Your task to perform on an android device: turn off smart reply in the gmail app Image 0: 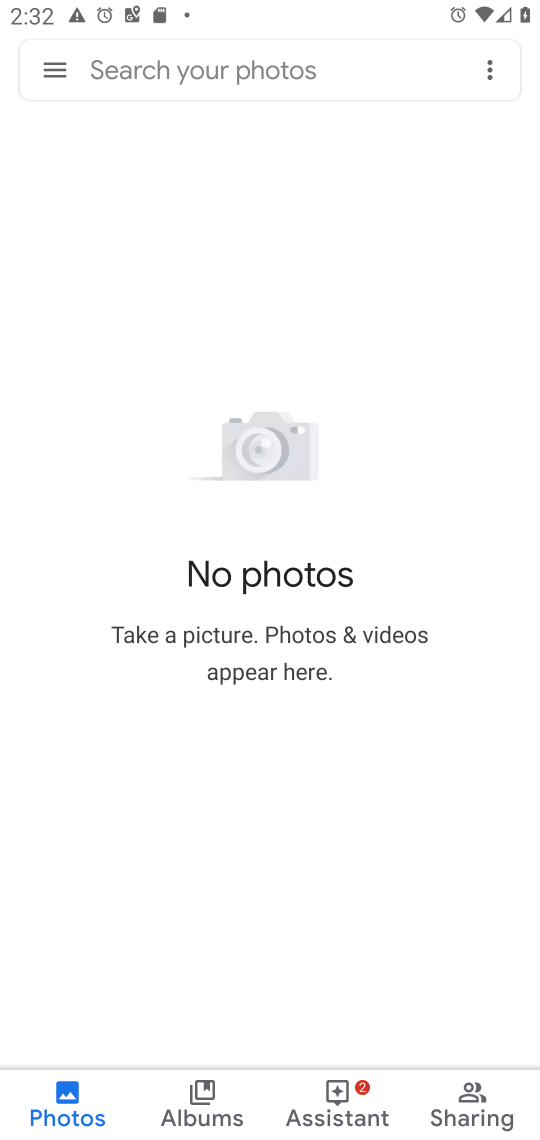
Step 0: press home button
Your task to perform on an android device: turn off smart reply in the gmail app Image 1: 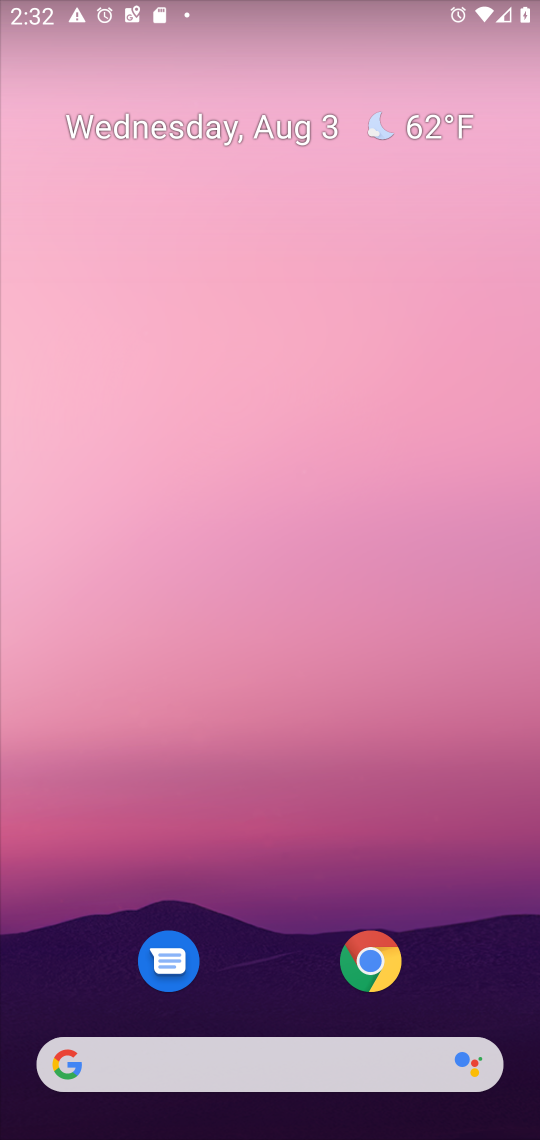
Step 1: drag from (255, 974) to (301, 45)
Your task to perform on an android device: turn off smart reply in the gmail app Image 2: 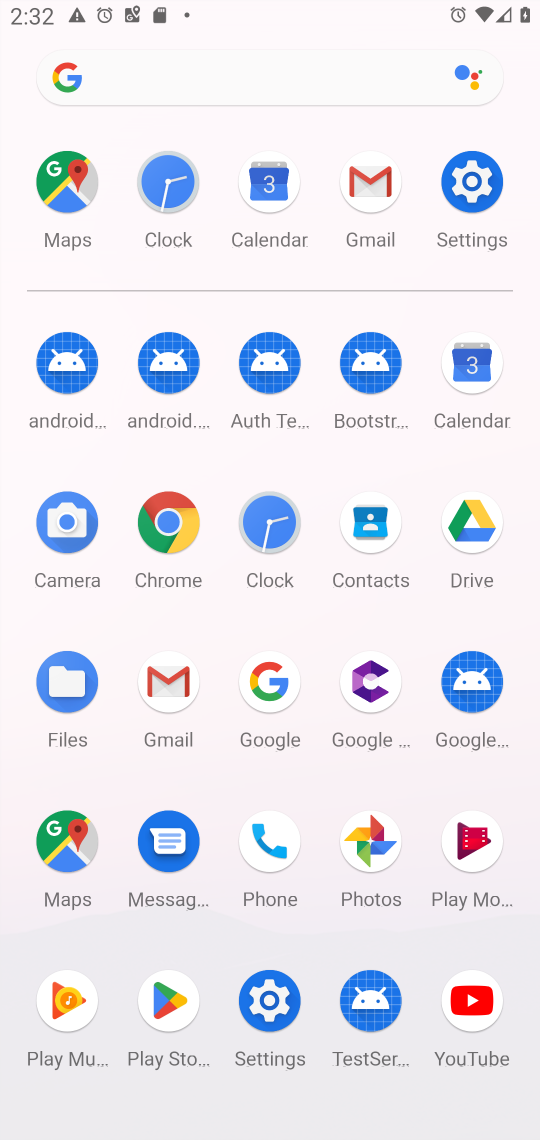
Step 2: click (375, 181)
Your task to perform on an android device: turn off smart reply in the gmail app Image 3: 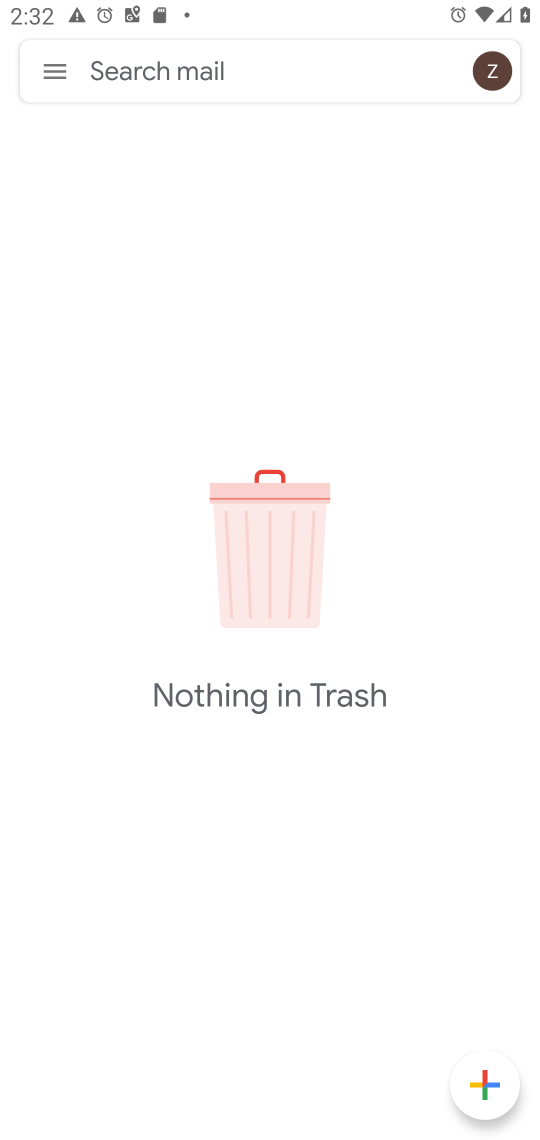
Step 3: click (51, 73)
Your task to perform on an android device: turn off smart reply in the gmail app Image 4: 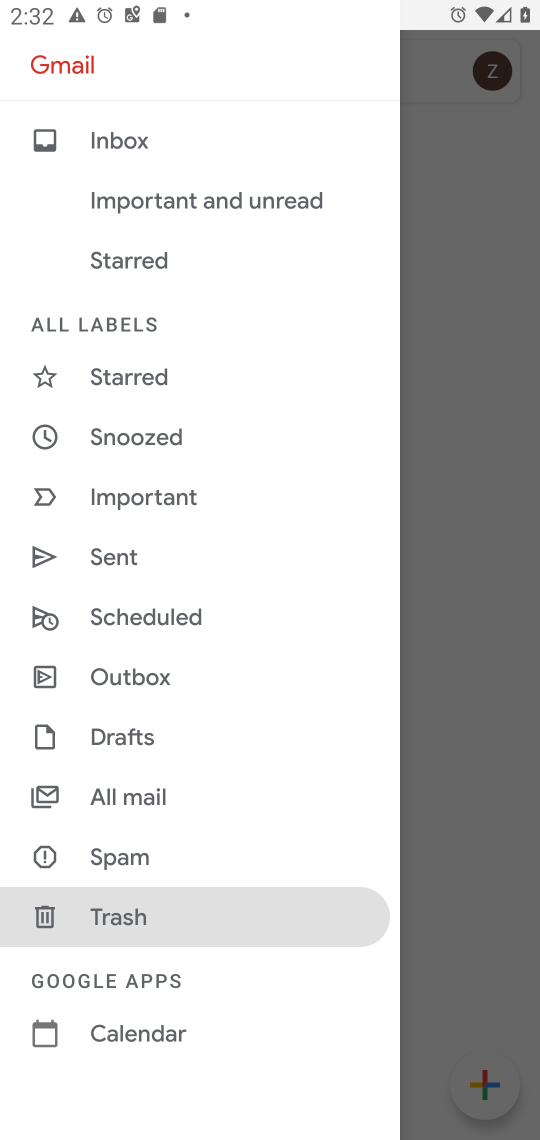
Step 4: drag from (267, 943) to (227, 318)
Your task to perform on an android device: turn off smart reply in the gmail app Image 5: 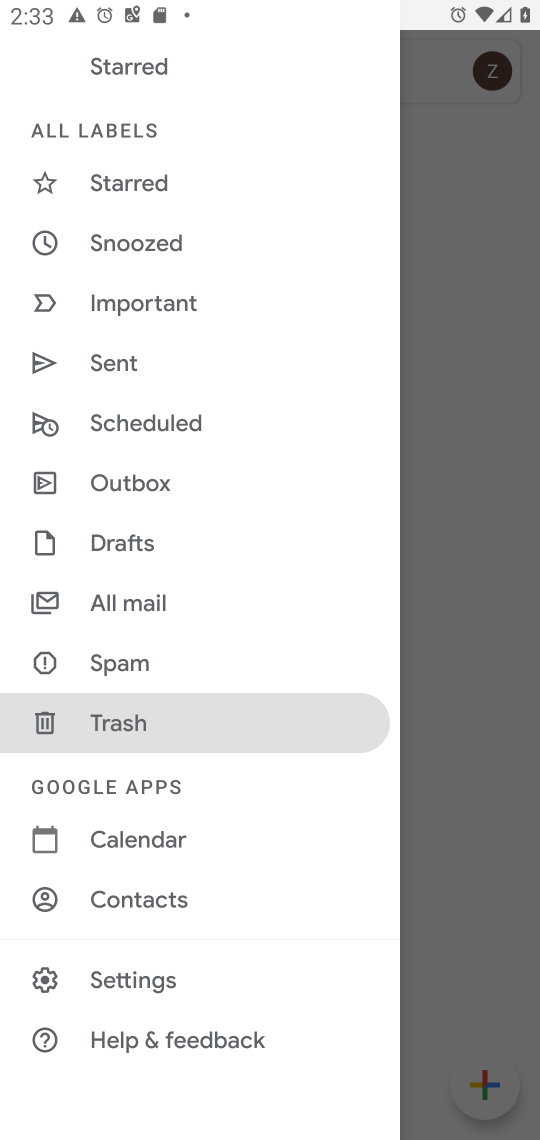
Step 5: click (134, 989)
Your task to perform on an android device: turn off smart reply in the gmail app Image 6: 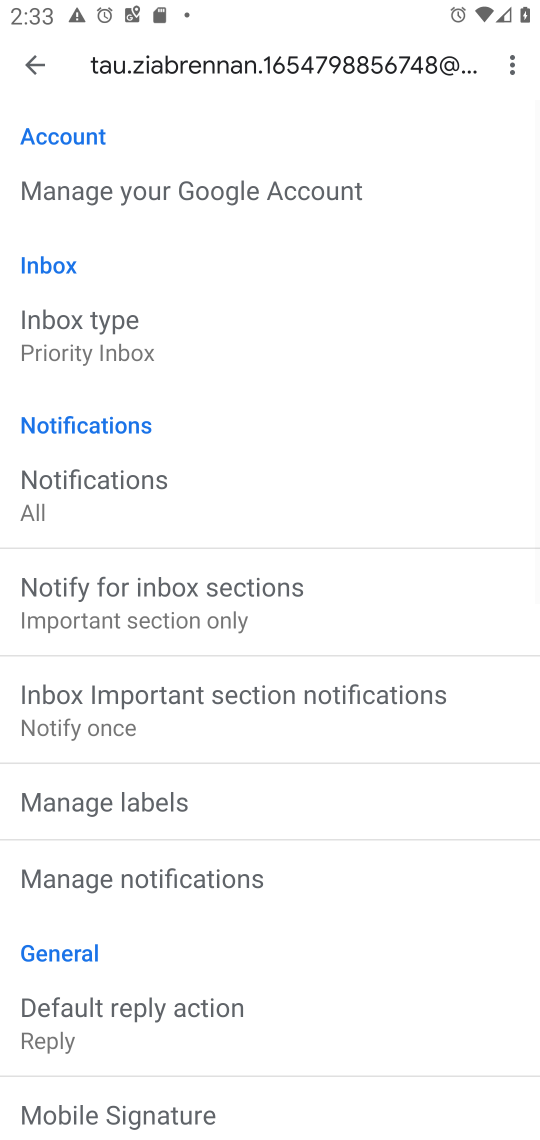
Step 6: drag from (337, 910) to (320, 255)
Your task to perform on an android device: turn off smart reply in the gmail app Image 7: 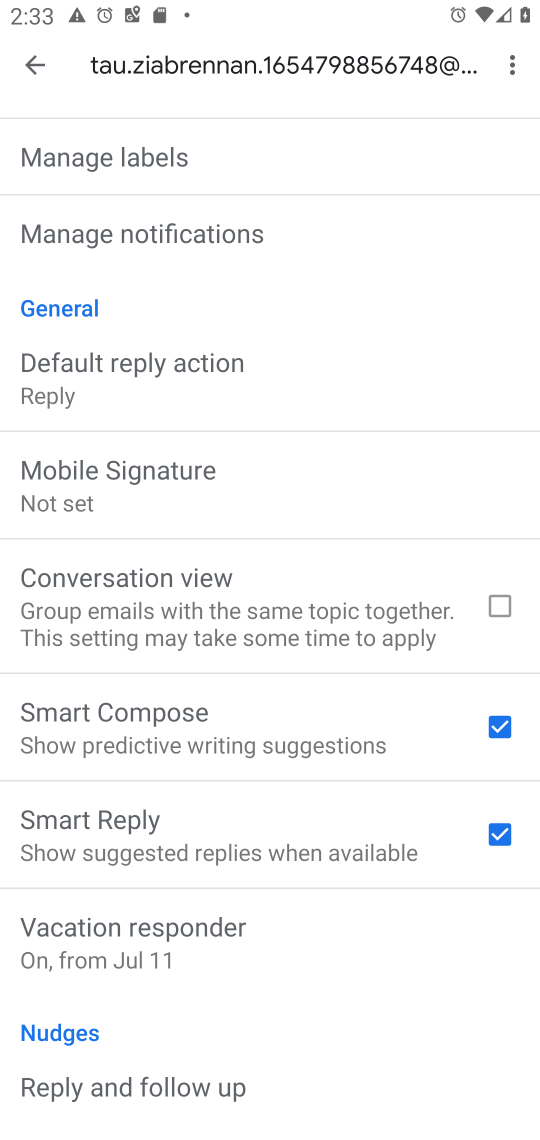
Step 7: click (501, 842)
Your task to perform on an android device: turn off smart reply in the gmail app Image 8: 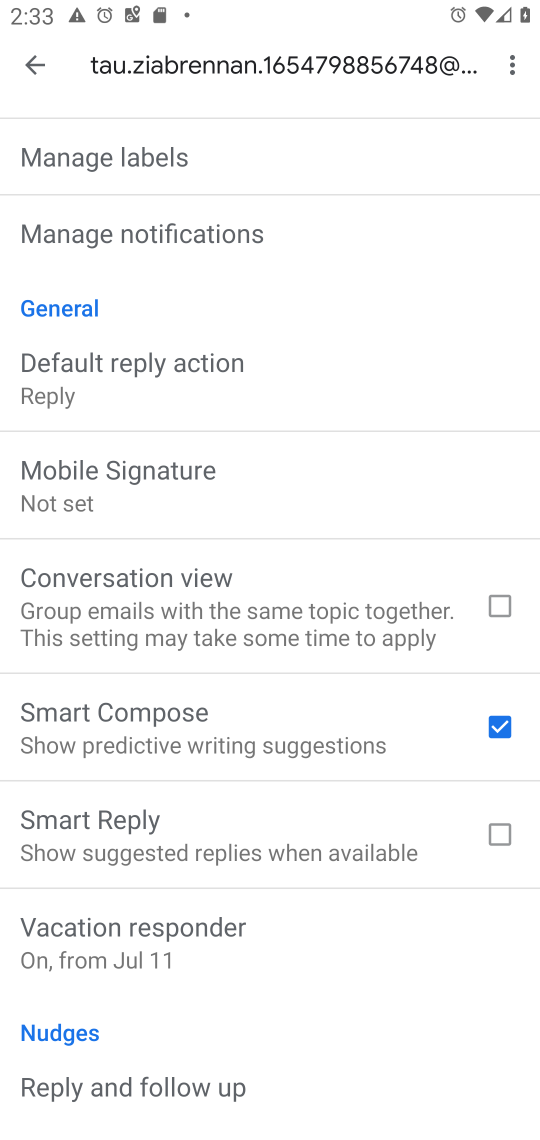
Step 8: task complete